Your task to perform on an android device: turn off notifications in google photos Image 0: 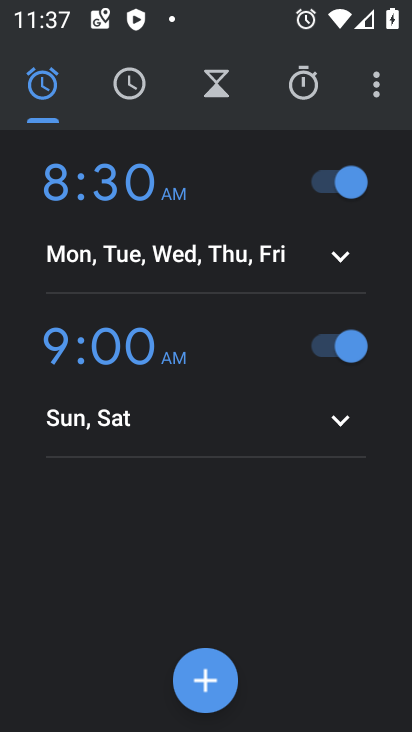
Step 0: press home button
Your task to perform on an android device: turn off notifications in google photos Image 1: 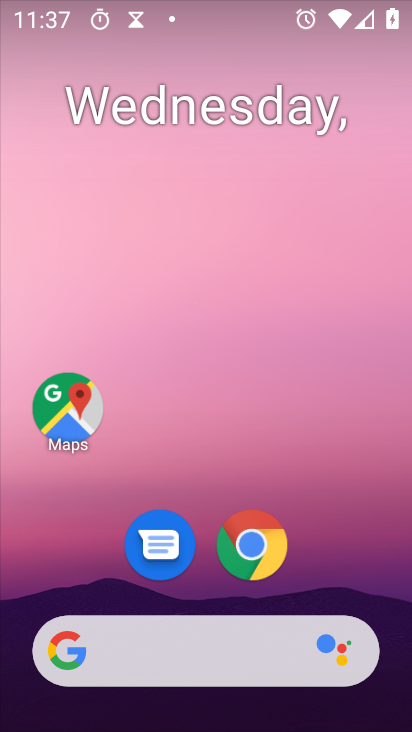
Step 1: drag from (221, 665) to (290, 92)
Your task to perform on an android device: turn off notifications in google photos Image 2: 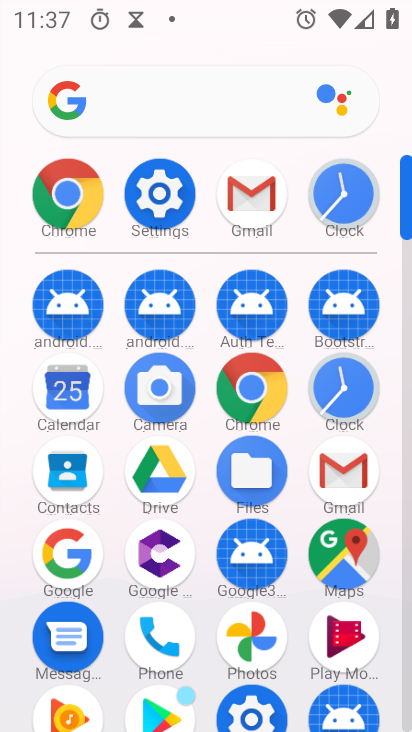
Step 2: drag from (181, 604) to (260, 263)
Your task to perform on an android device: turn off notifications in google photos Image 3: 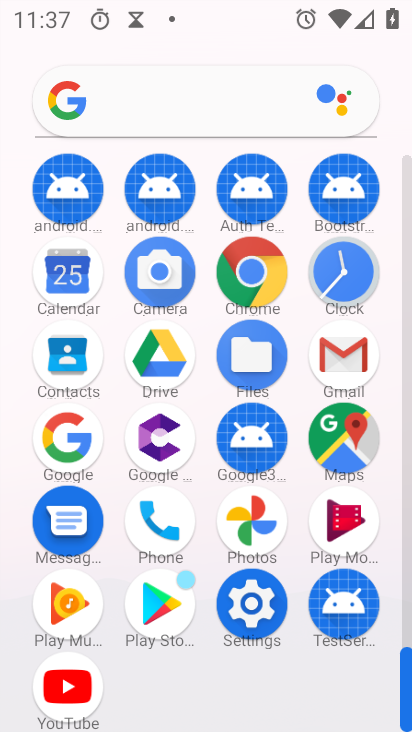
Step 3: click (258, 512)
Your task to perform on an android device: turn off notifications in google photos Image 4: 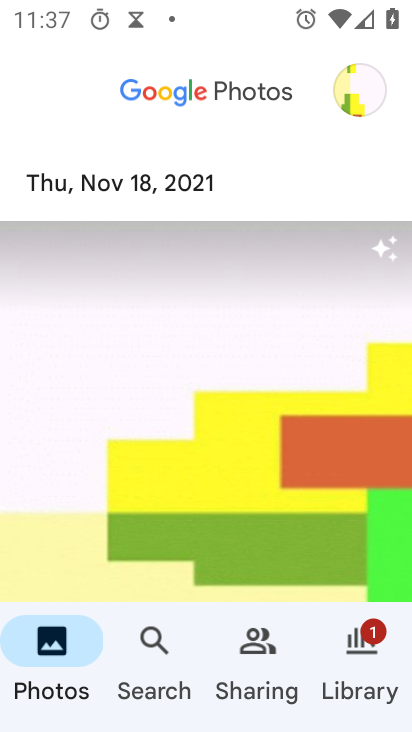
Step 4: click (347, 101)
Your task to perform on an android device: turn off notifications in google photos Image 5: 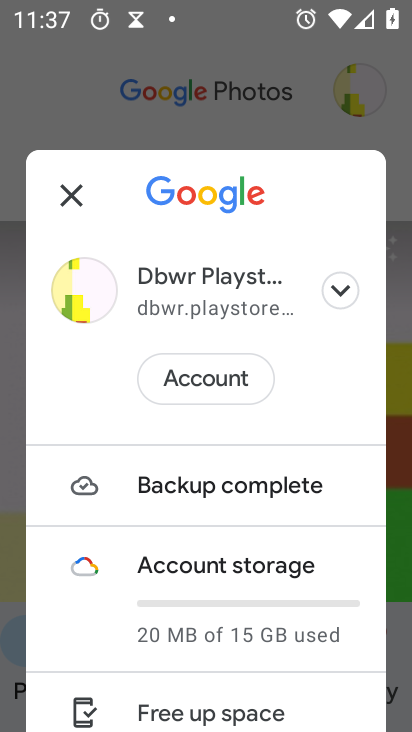
Step 5: drag from (224, 669) to (262, 215)
Your task to perform on an android device: turn off notifications in google photos Image 6: 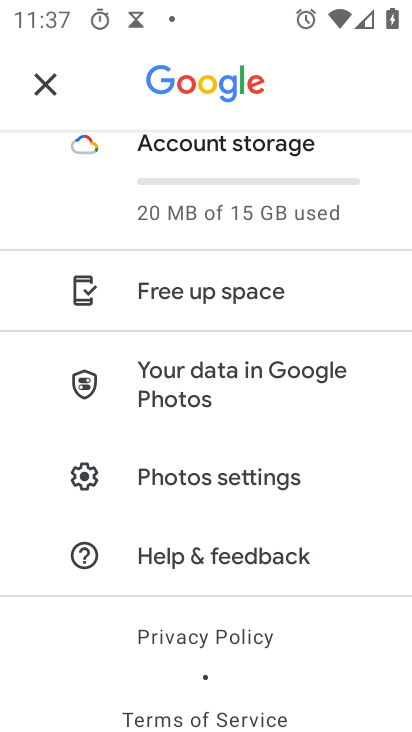
Step 6: click (175, 477)
Your task to perform on an android device: turn off notifications in google photos Image 7: 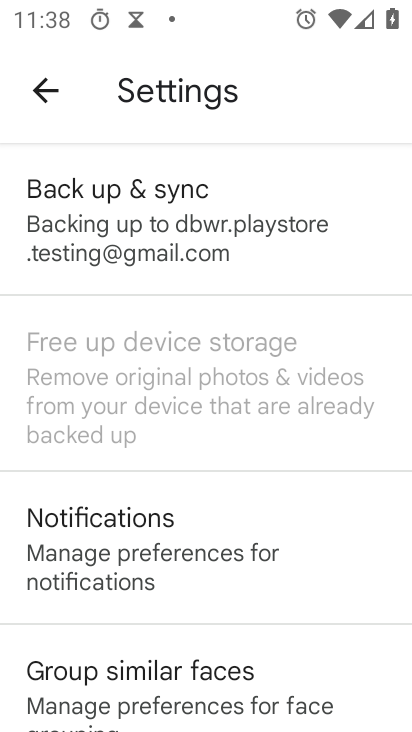
Step 7: drag from (186, 567) to (234, 321)
Your task to perform on an android device: turn off notifications in google photos Image 8: 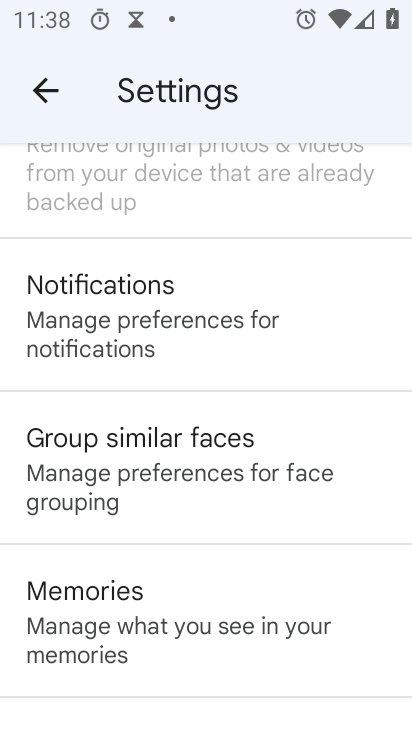
Step 8: click (198, 312)
Your task to perform on an android device: turn off notifications in google photos Image 9: 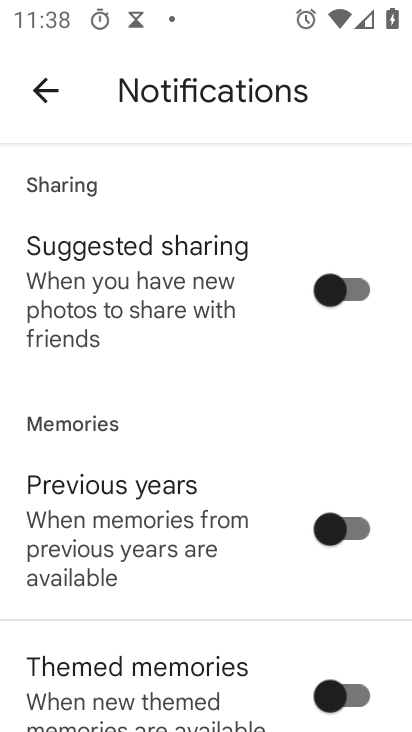
Step 9: drag from (192, 682) to (223, 41)
Your task to perform on an android device: turn off notifications in google photos Image 10: 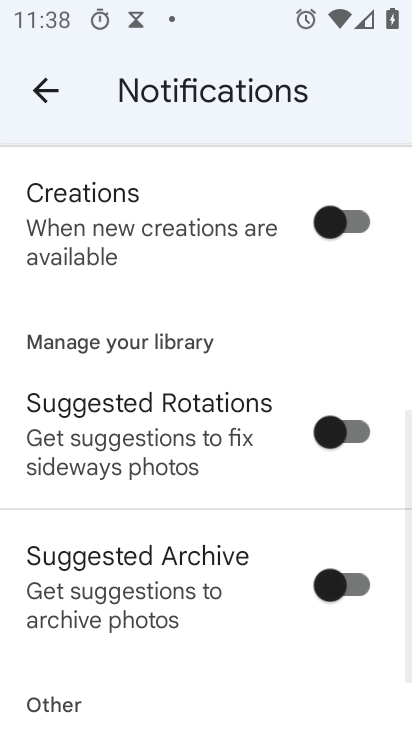
Step 10: drag from (198, 594) to (222, 89)
Your task to perform on an android device: turn off notifications in google photos Image 11: 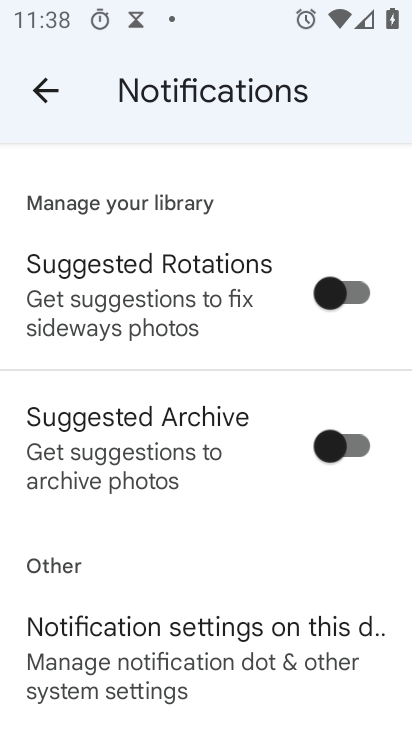
Step 11: click (196, 644)
Your task to perform on an android device: turn off notifications in google photos Image 12: 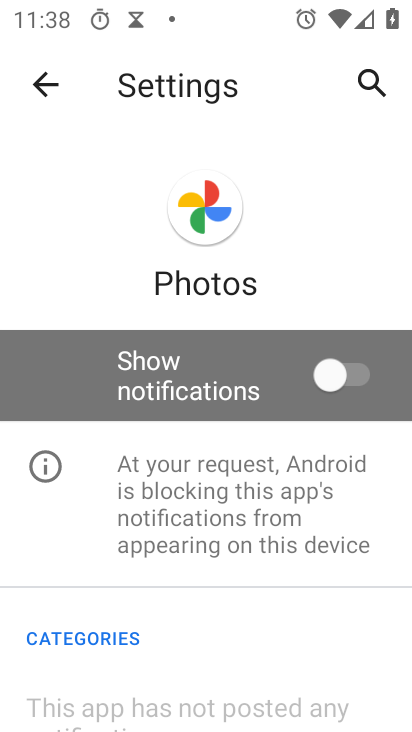
Step 12: task complete